Your task to perform on an android device: check android version Image 0: 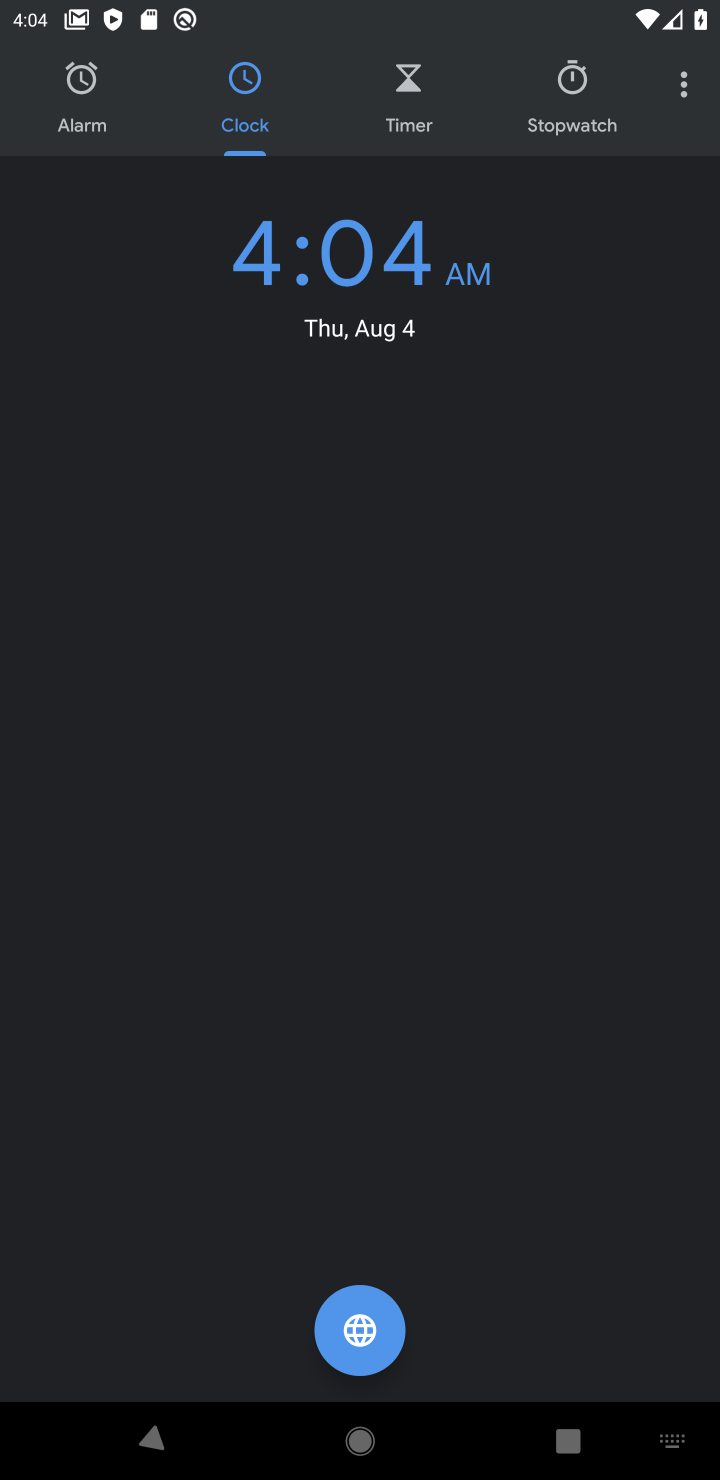
Step 0: press home button
Your task to perform on an android device: check android version Image 1: 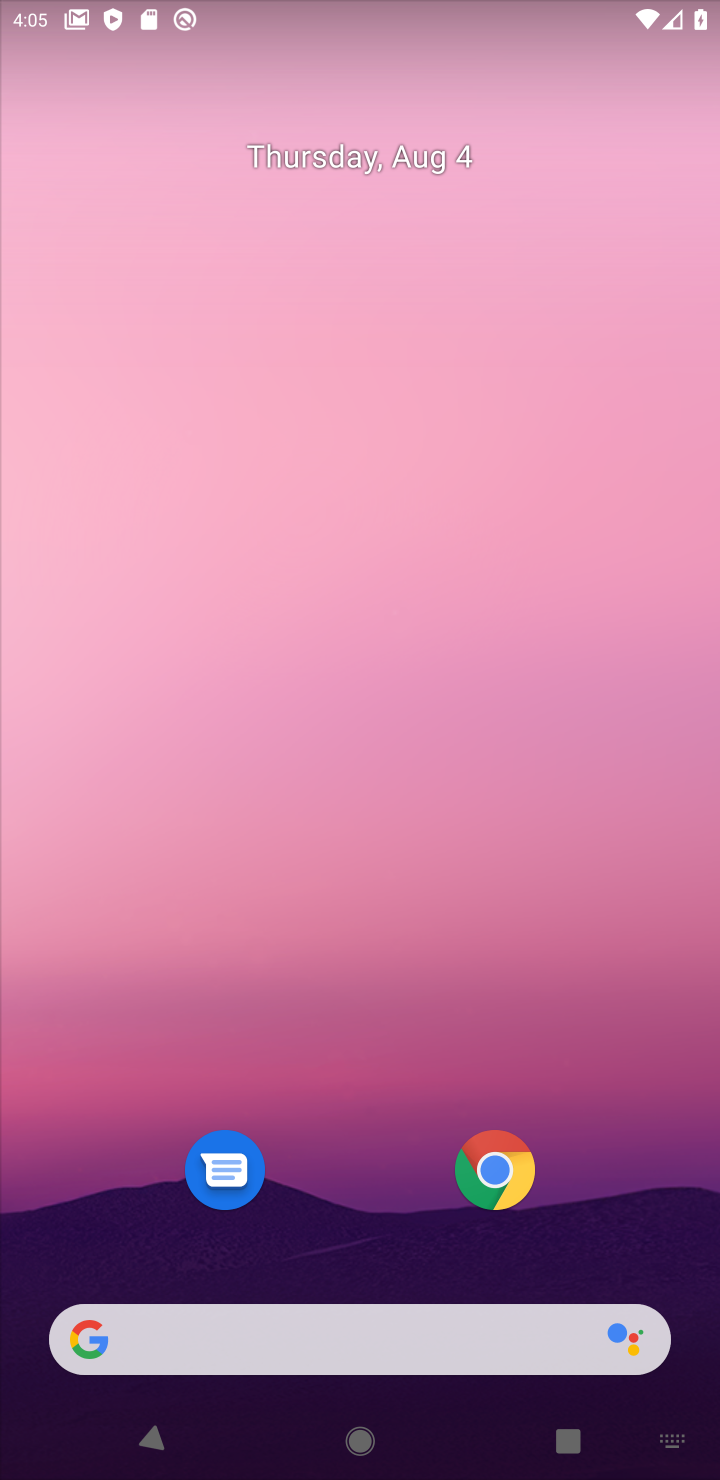
Step 1: drag from (590, 692) to (518, 14)
Your task to perform on an android device: check android version Image 2: 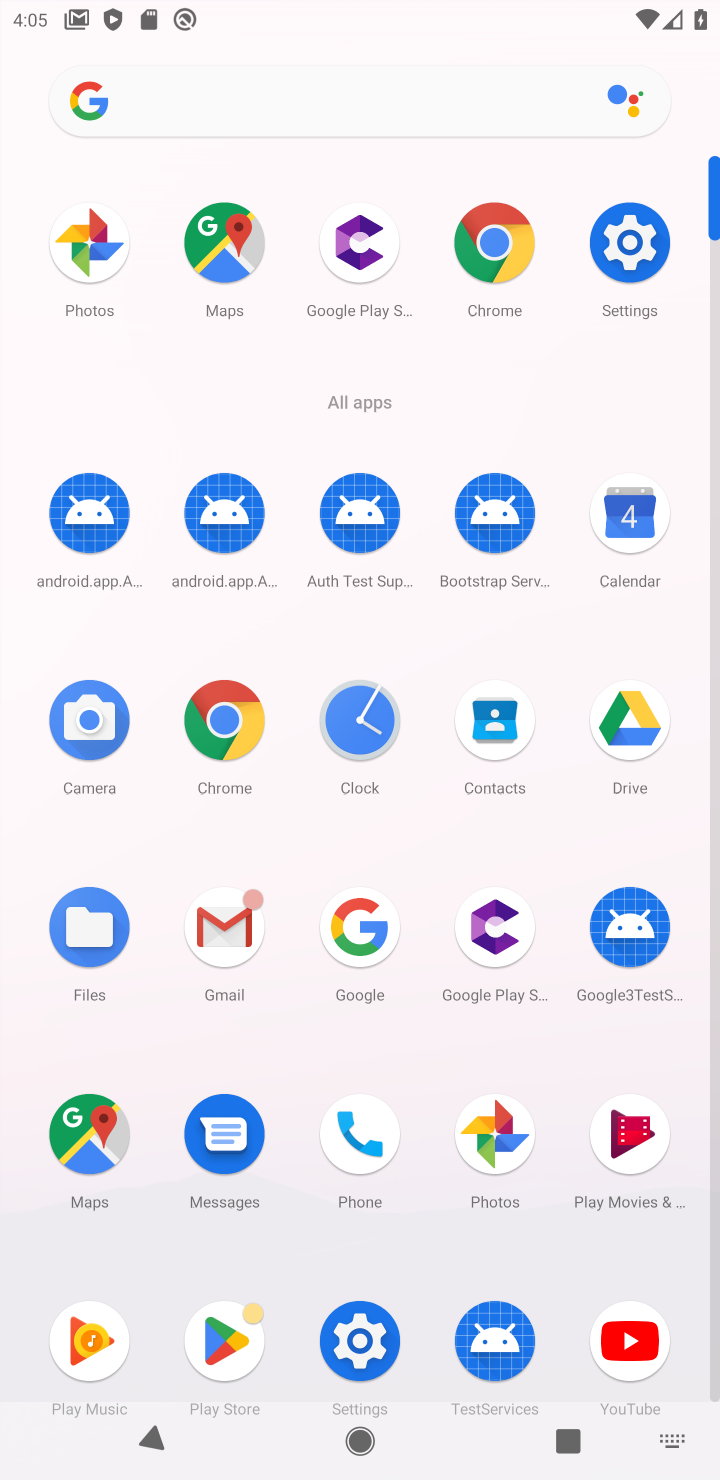
Step 2: click (627, 274)
Your task to perform on an android device: check android version Image 3: 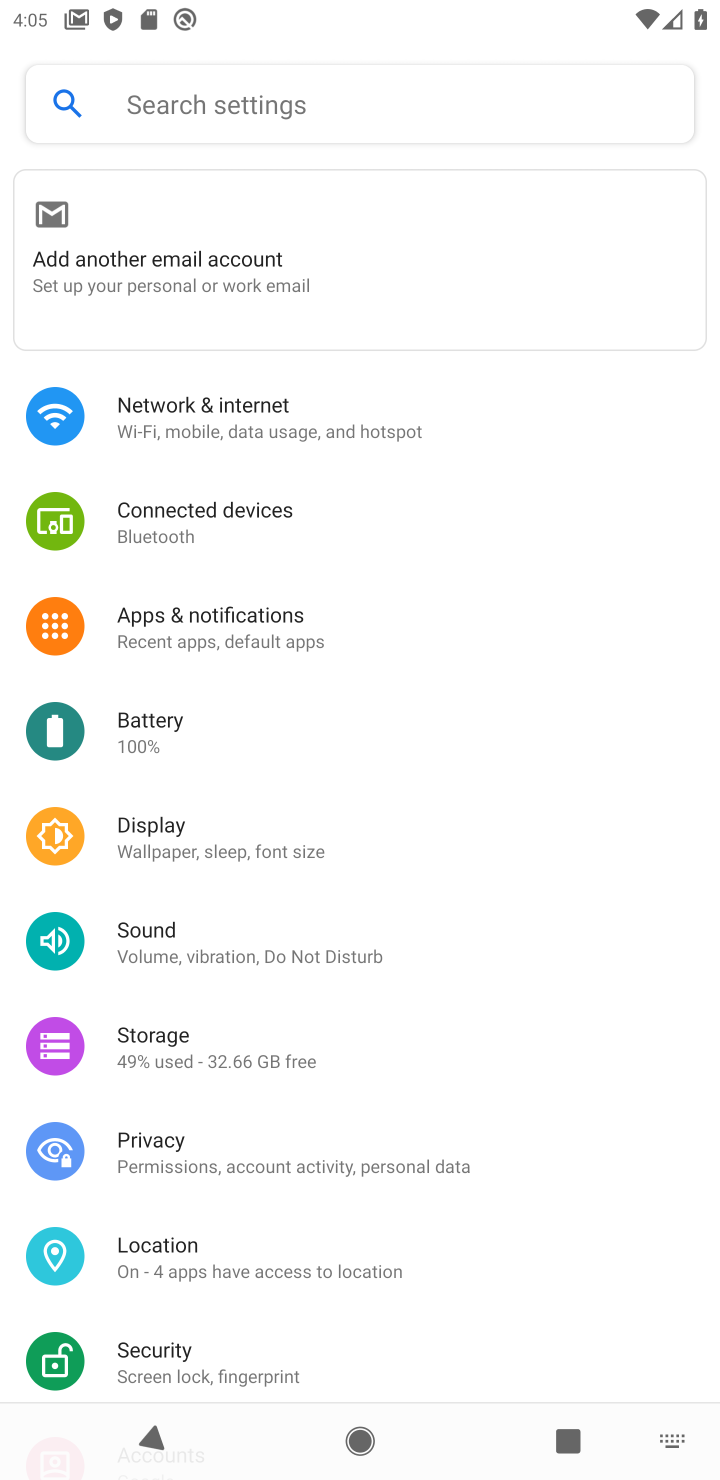
Step 3: drag from (502, 1331) to (429, 423)
Your task to perform on an android device: check android version Image 4: 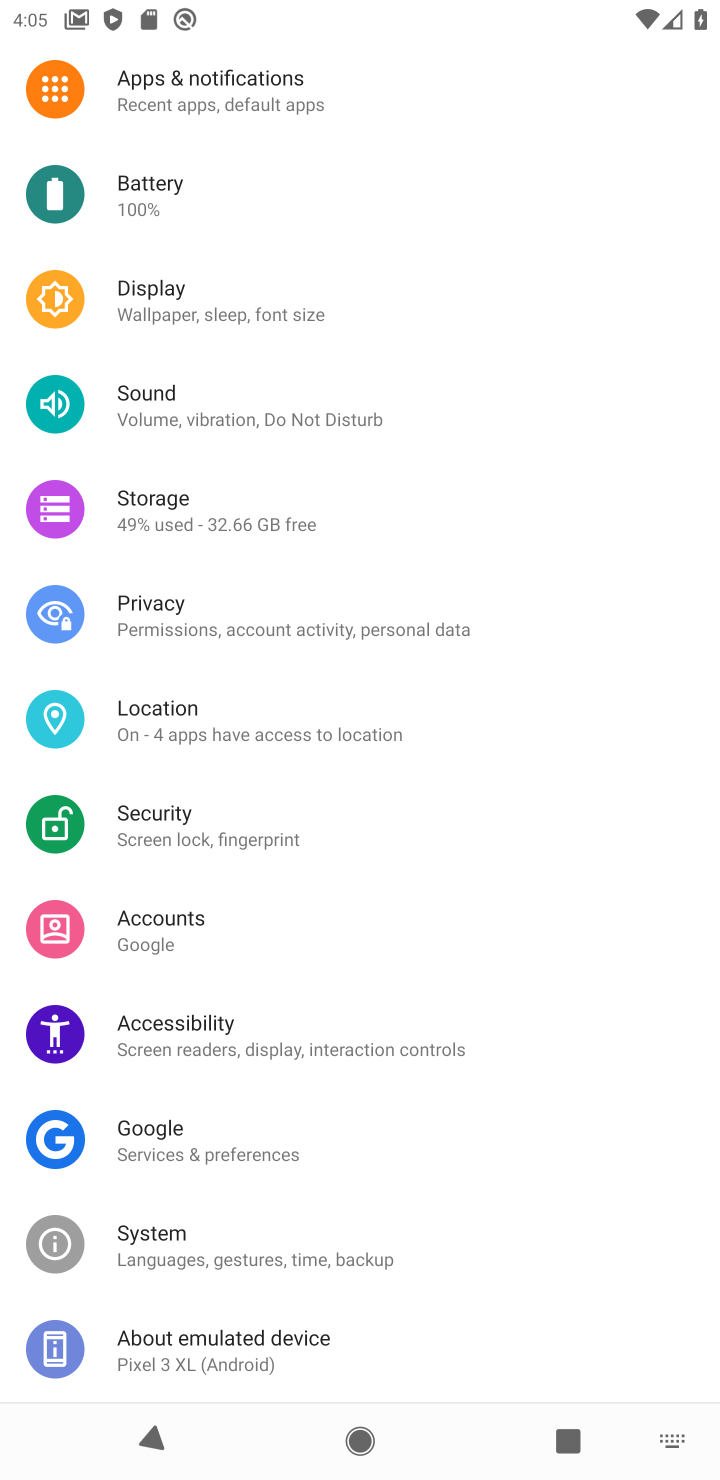
Step 4: click (325, 1370)
Your task to perform on an android device: check android version Image 5: 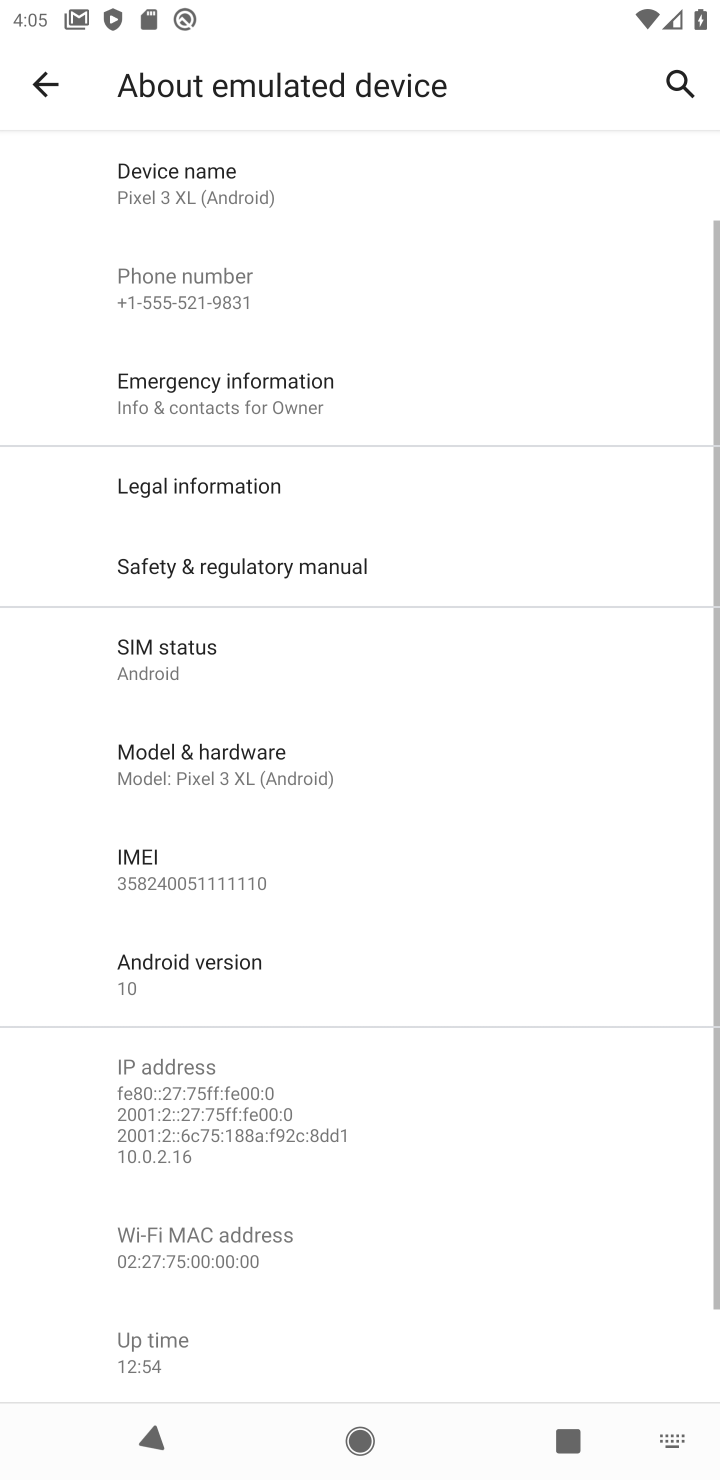
Step 5: click (369, 983)
Your task to perform on an android device: check android version Image 6: 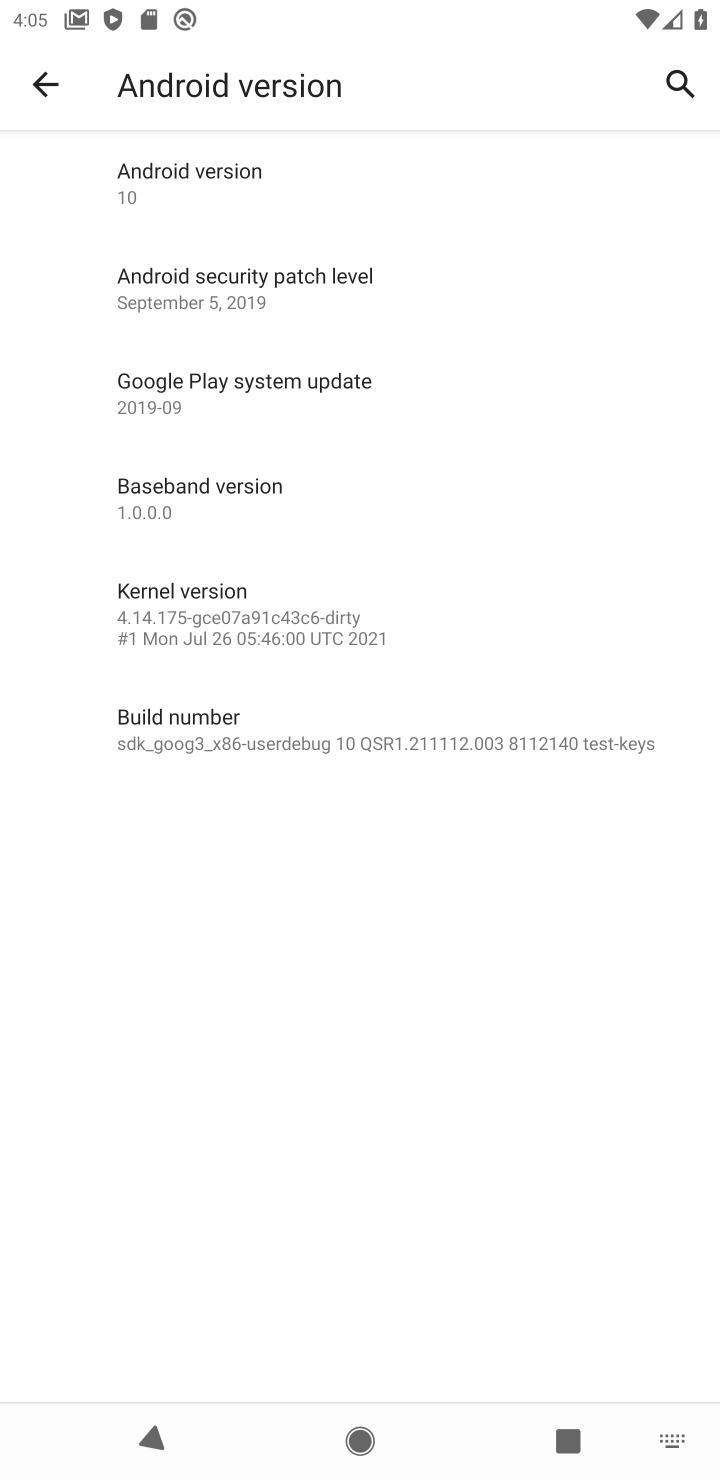
Step 6: task complete